Your task to perform on an android device: Turn on the flashlight Image 0: 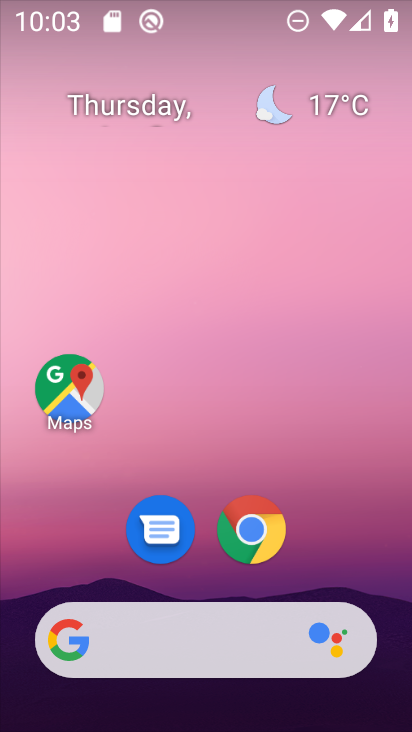
Step 0: drag from (387, 623) to (381, 179)
Your task to perform on an android device: Turn on the flashlight Image 1: 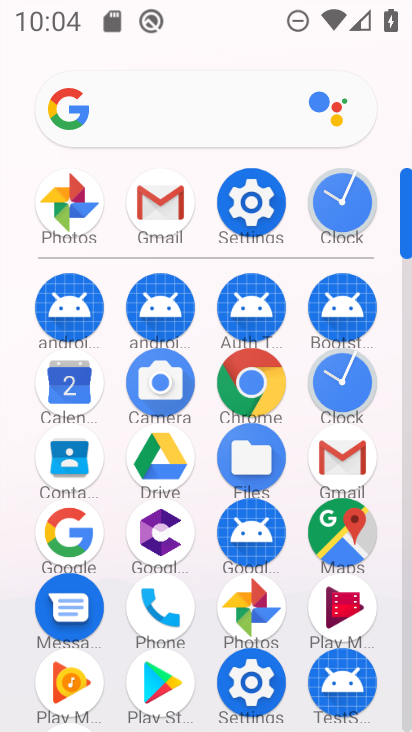
Step 1: click (246, 212)
Your task to perform on an android device: Turn on the flashlight Image 2: 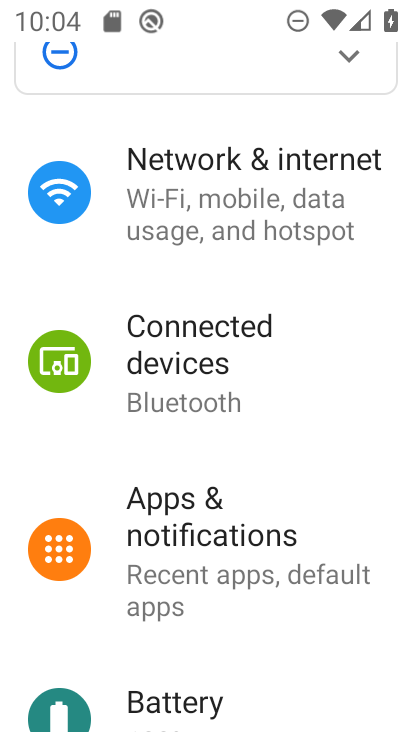
Step 2: drag from (325, 669) to (340, 237)
Your task to perform on an android device: Turn on the flashlight Image 3: 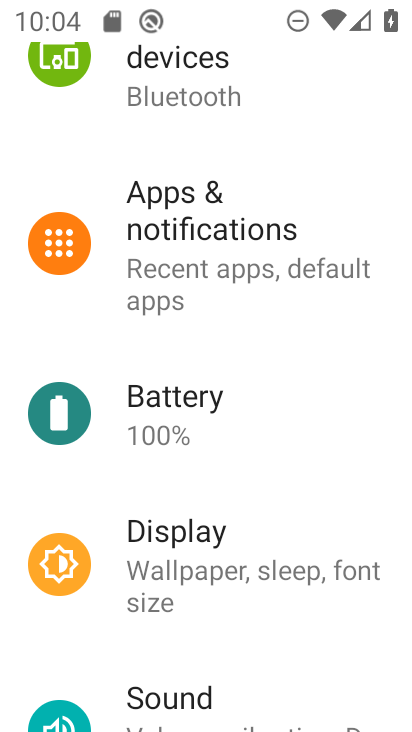
Step 3: drag from (306, 659) to (321, 369)
Your task to perform on an android device: Turn on the flashlight Image 4: 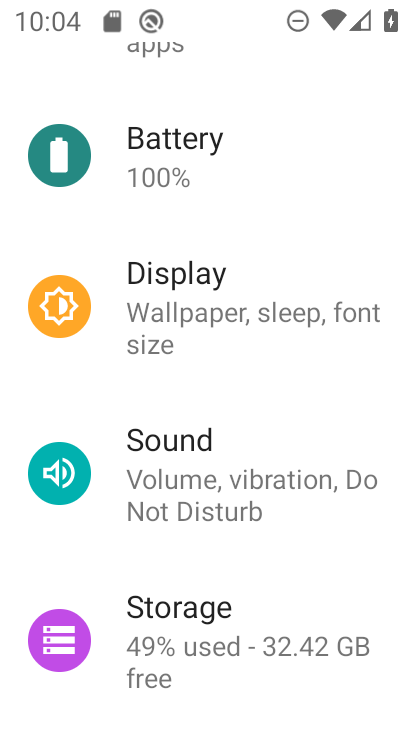
Step 4: drag from (330, 613) to (329, 221)
Your task to perform on an android device: Turn on the flashlight Image 5: 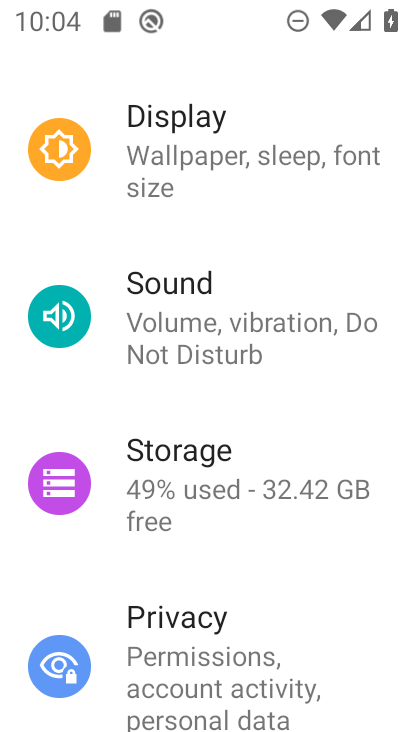
Step 5: drag from (324, 595) to (318, 156)
Your task to perform on an android device: Turn on the flashlight Image 6: 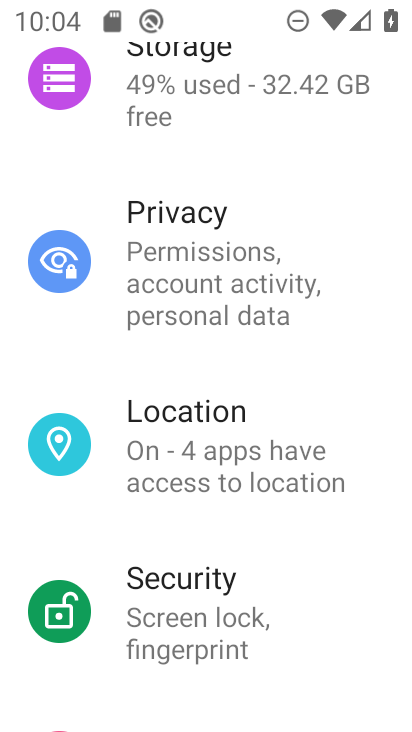
Step 6: drag from (256, 144) to (281, 481)
Your task to perform on an android device: Turn on the flashlight Image 7: 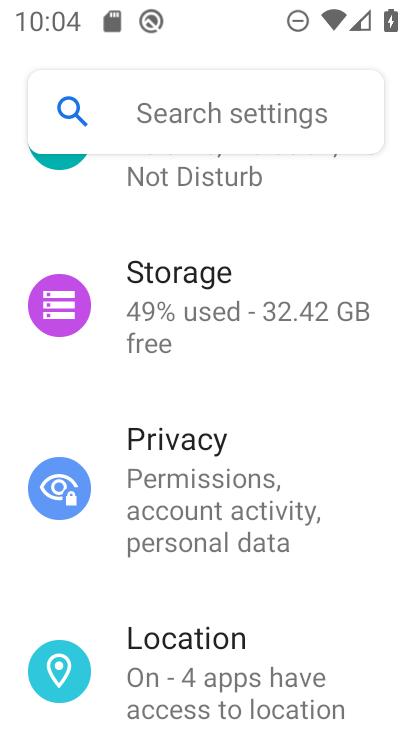
Step 7: drag from (260, 244) to (304, 553)
Your task to perform on an android device: Turn on the flashlight Image 8: 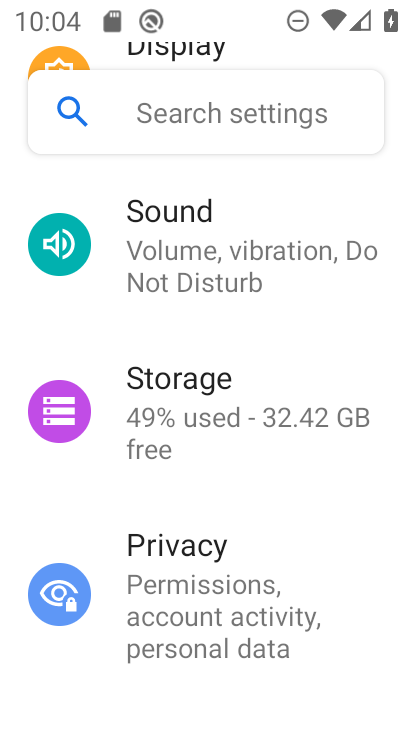
Step 8: click (196, 45)
Your task to perform on an android device: Turn on the flashlight Image 9: 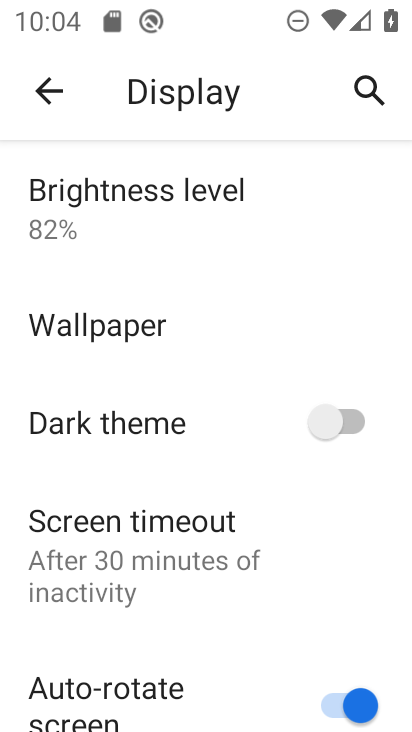
Step 9: task complete